Your task to perform on an android device: Go to Yahoo.com Image 0: 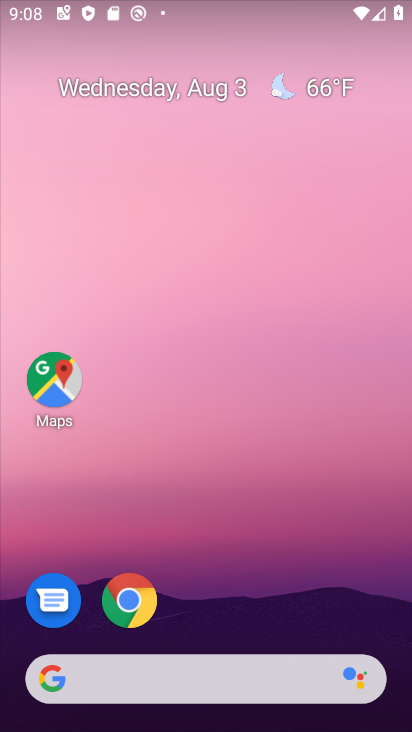
Step 0: click (141, 596)
Your task to perform on an android device: Go to Yahoo.com Image 1: 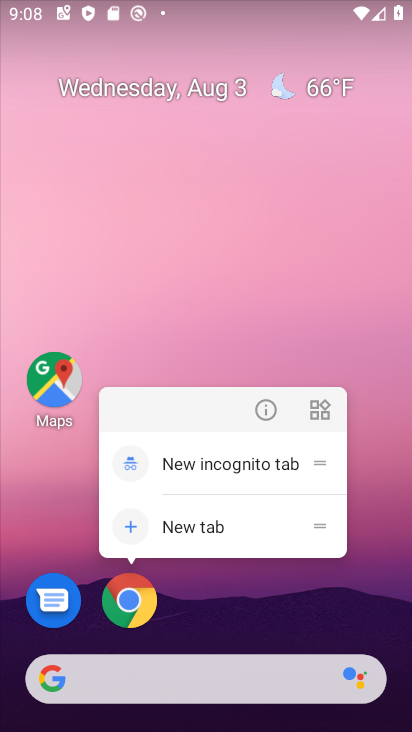
Step 1: click (135, 606)
Your task to perform on an android device: Go to Yahoo.com Image 2: 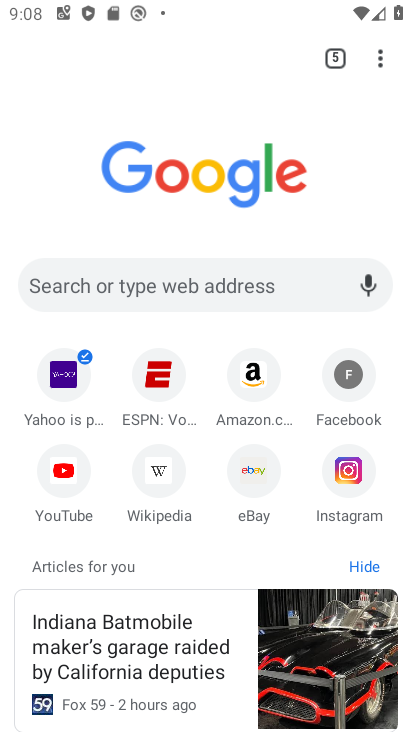
Step 2: click (66, 381)
Your task to perform on an android device: Go to Yahoo.com Image 3: 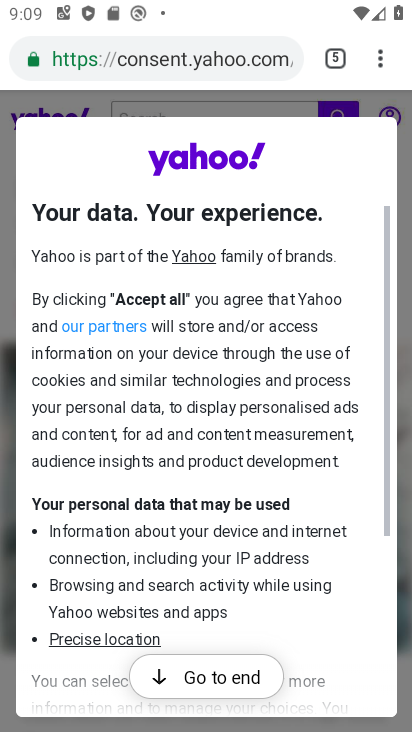
Step 3: task complete